Your task to perform on an android device: Open internet settings Image 0: 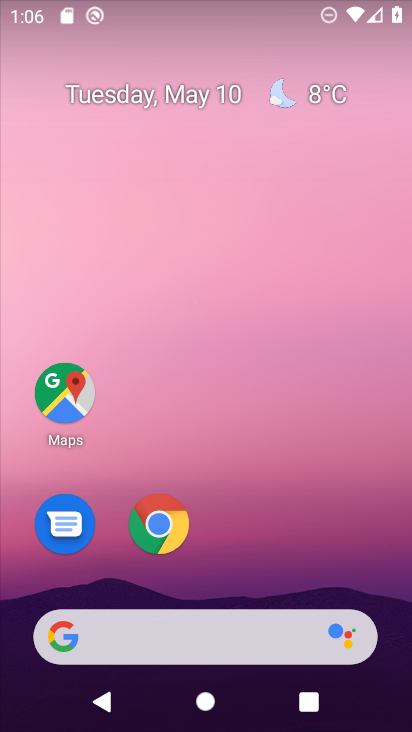
Step 0: drag from (289, 520) to (336, 111)
Your task to perform on an android device: Open internet settings Image 1: 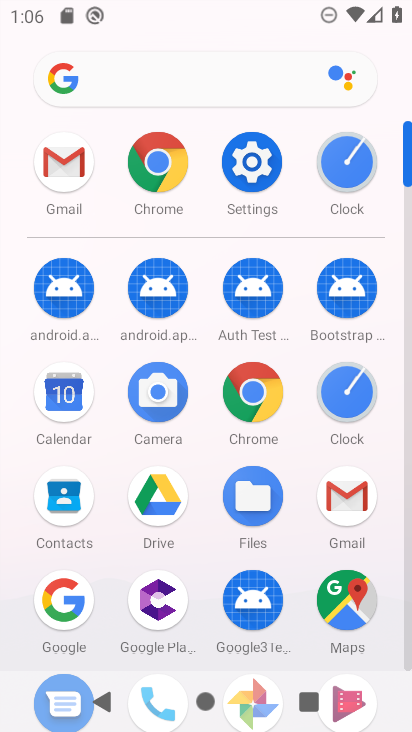
Step 1: click (262, 145)
Your task to perform on an android device: Open internet settings Image 2: 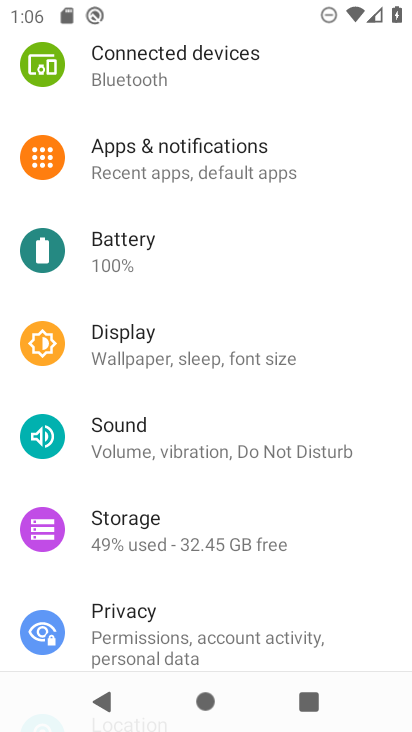
Step 2: drag from (223, 286) to (255, 544)
Your task to perform on an android device: Open internet settings Image 3: 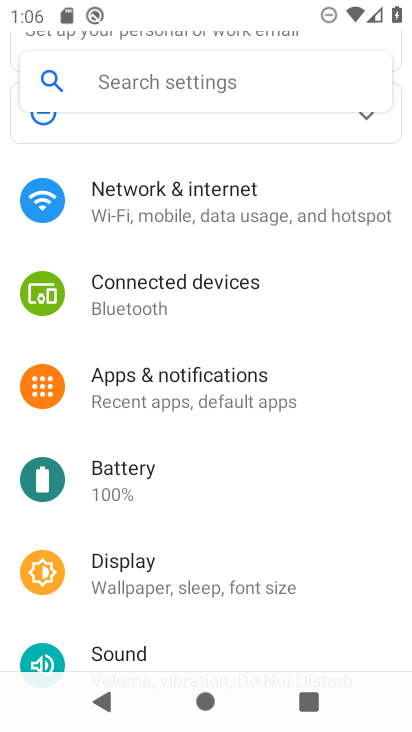
Step 3: click (204, 225)
Your task to perform on an android device: Open internet settings Image 4: 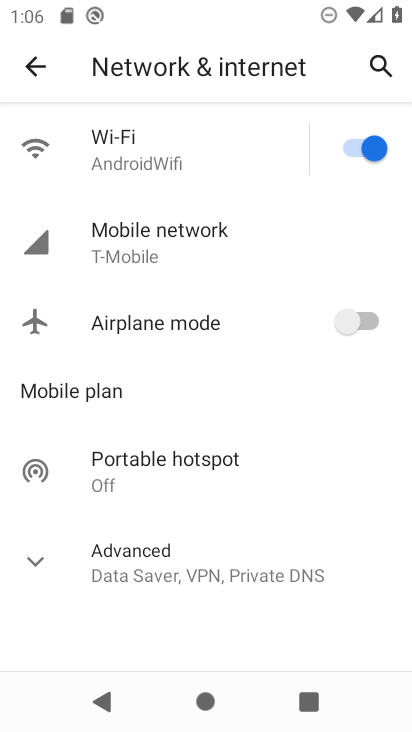
Step 4: task complete